Your task to perform on an android device: What is the recent news? Image 0: 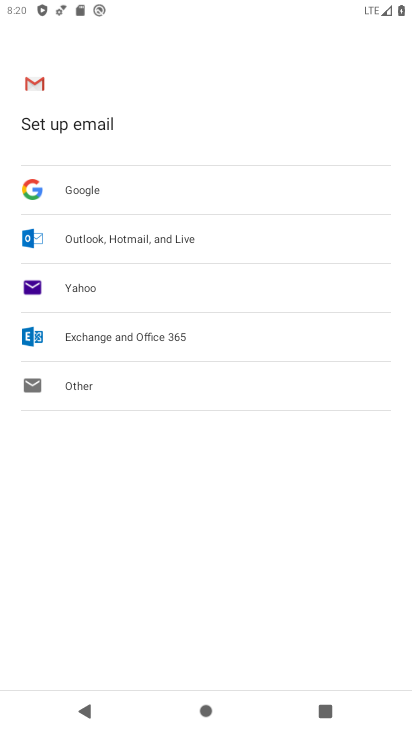
Step 0: press home button
Your task to perform on an android device: What is the recent news? Image 1: 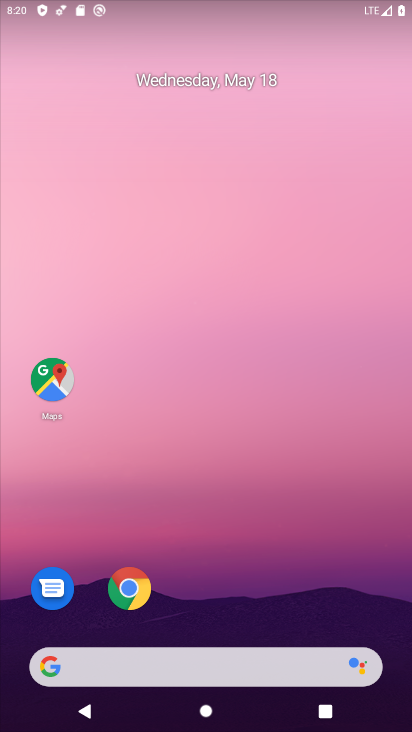
Step 1: click (91, 666)
Your task to perform on an android device: What is the recent news? Image 2: 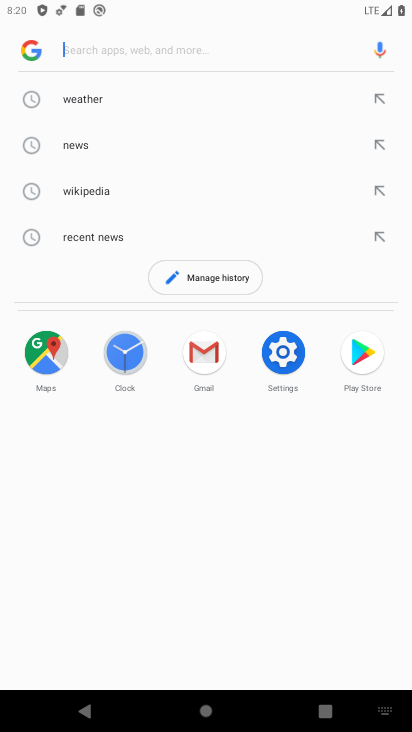
Step 2: click (84, 237)
Your task to perform on an android device: What is the recent news? Image 3: 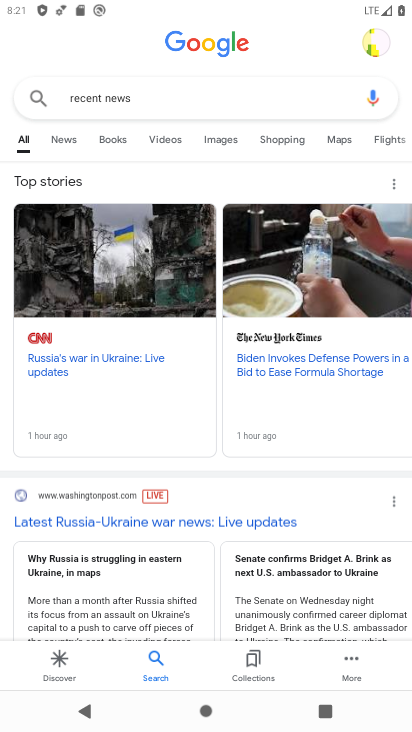
Step 3: click (73, 145)
Your task to perform on an android device: What is the recent news? Image 4: 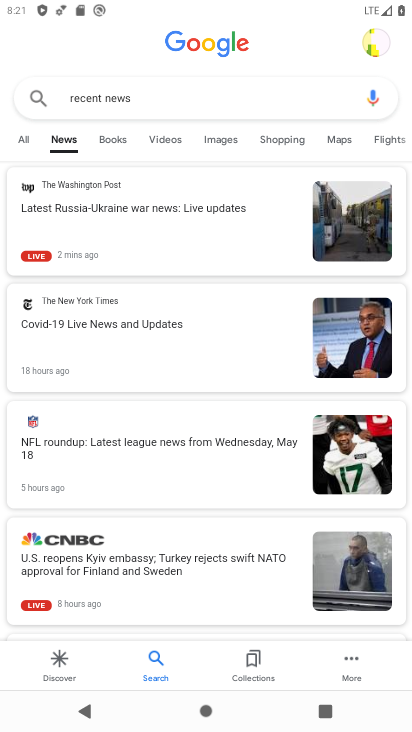
Step 4: click (101, 212)
Your task to perform on an android device: What is the recent news? Image 5: 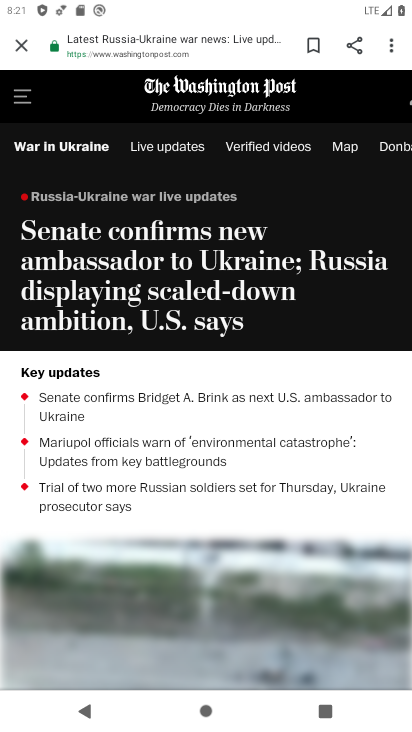
Step 5: task complete